Your task to perform on an android device: Open calendar and show me the third week of next month Image 0: 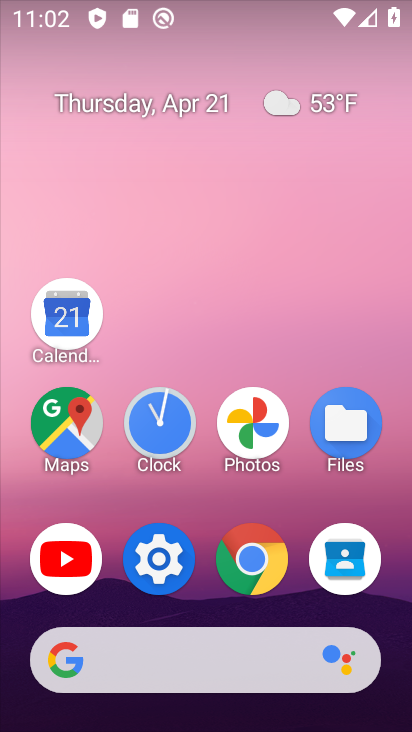
Step 0: click (57, 328)
Your task to perform on an android device: Open calendar and show me the third week of next month Image 1: 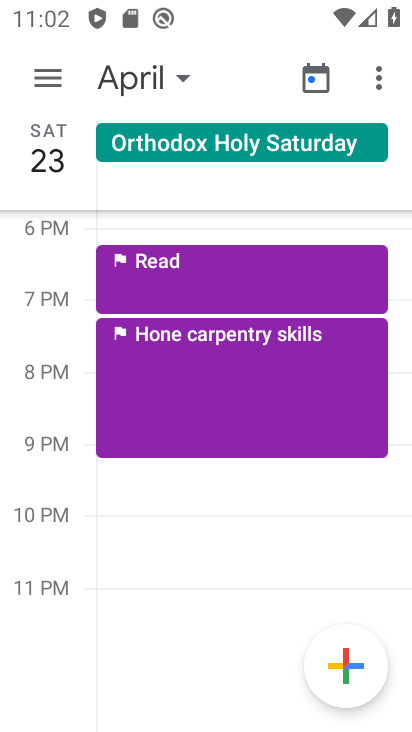
Step 1: click (50, 73)
Your task to perform on an android device: Open calendar and show me the third week of next month Image 2: 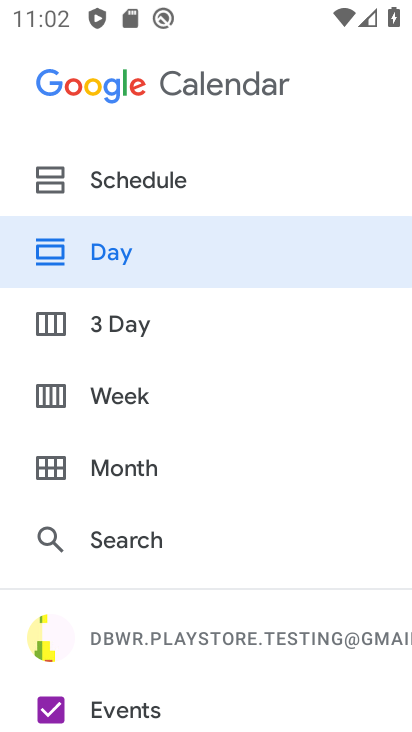
Step 2: click (111, 393)
Your task to perform on an android device: Open calendar and show me the third week of next month Image 3: 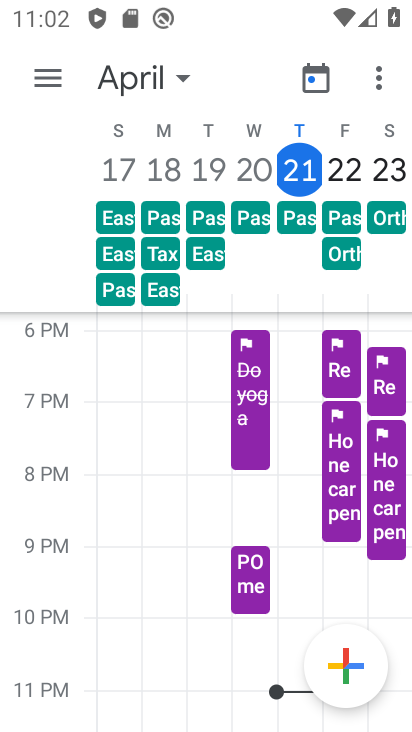
Step 3: click (182, 74)
Your task to perform on an android device: Open calendar and show me the third week of next month Image 4: 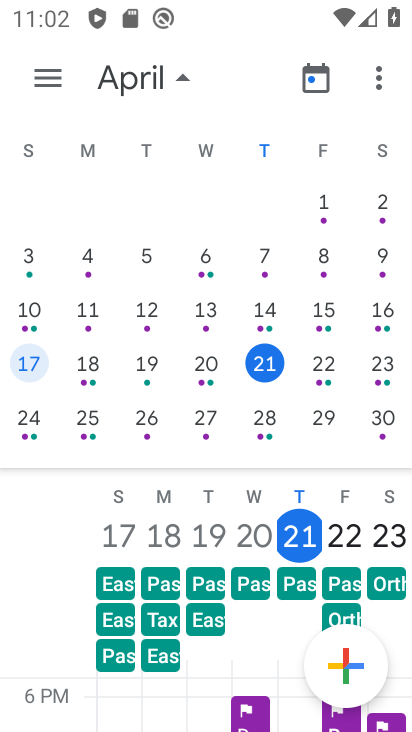
Step 4: drag from (381, 294) to (6, 186)
Your task to perform on an android device: Open calendar and show me the third week of next month Image 5: 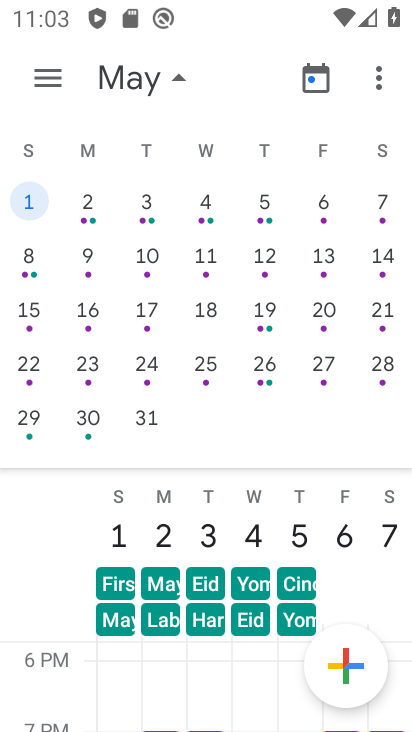
Step 5: click (207, 307)
Your task to perform on an android device: Open calendar and show me the third week of next month Image 6: 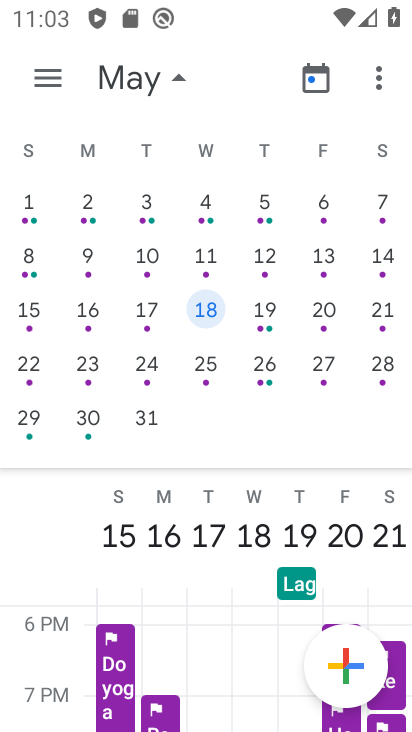
Step 6: task complete